Your task to perform on an android device: Go to location settings Image 0: 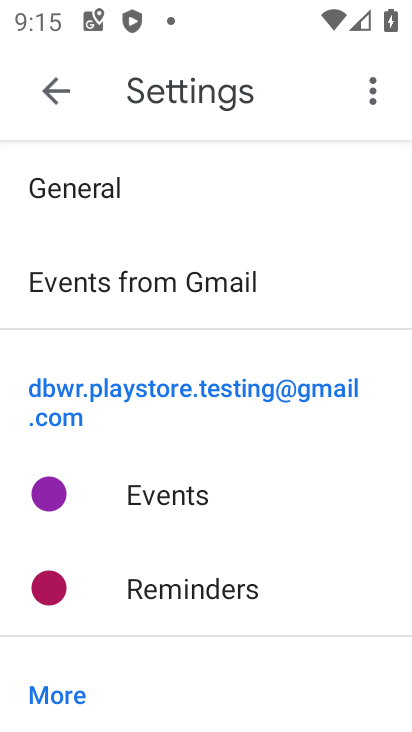
Step 0: press home button
Your task to perform on an android device: Go to location settings Image 1: 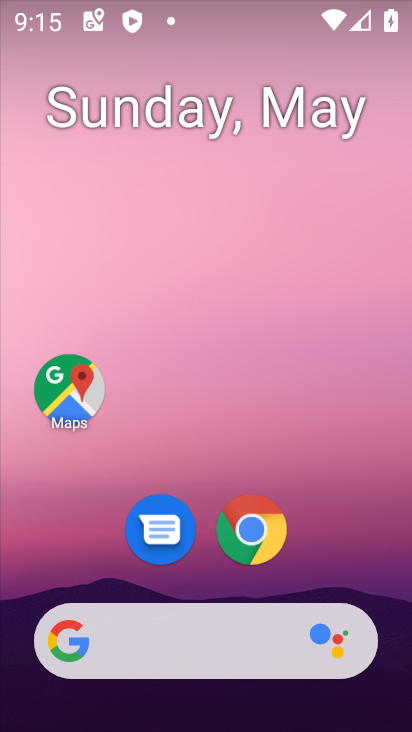
Step 1: click (360, 584)
Your task to perform on an android device: Go to location settings Image 2: 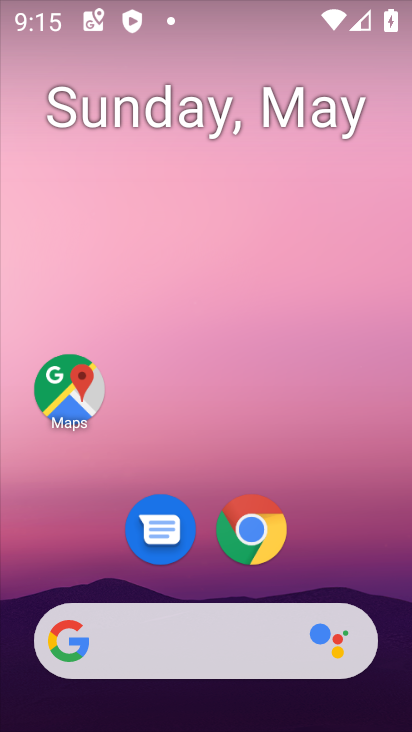
Step 2: drag from (360, 584) to (321, 75)
Your task to perform on an android device: Go to location settings Image 3: 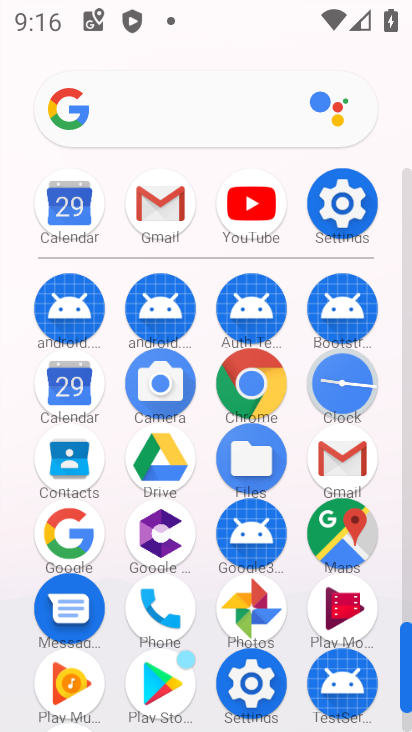
Step 3: click (334, 177)
Your task to perform on an android device: Go to location settings Image 4: 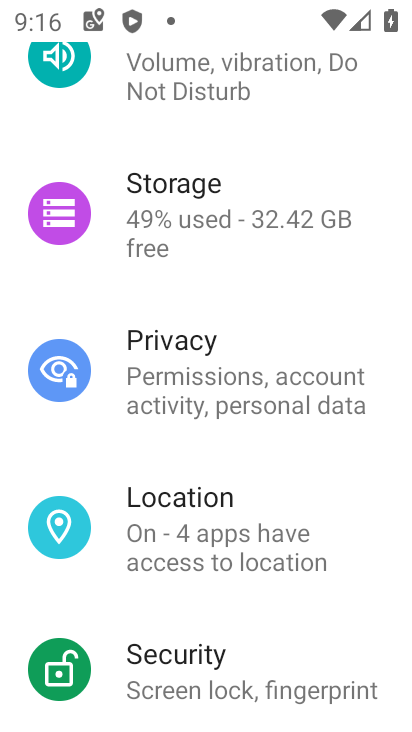
Step 4: click (230, 510)
Your task to perform on an android device: Go to location settings Image 5: 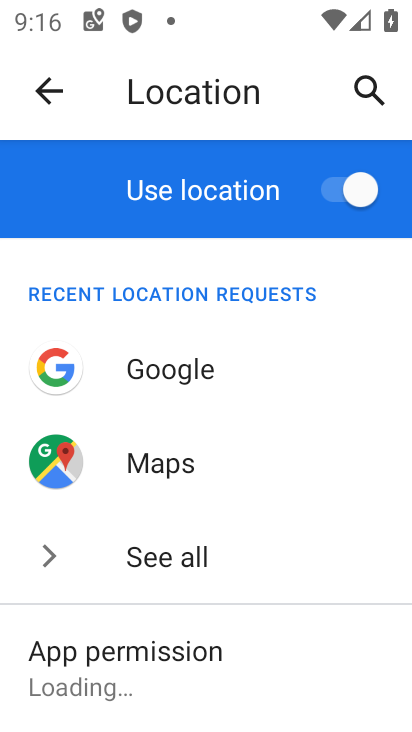
Step 5: task complete